Your task to perform on an android device: Open notification settings Image 0: 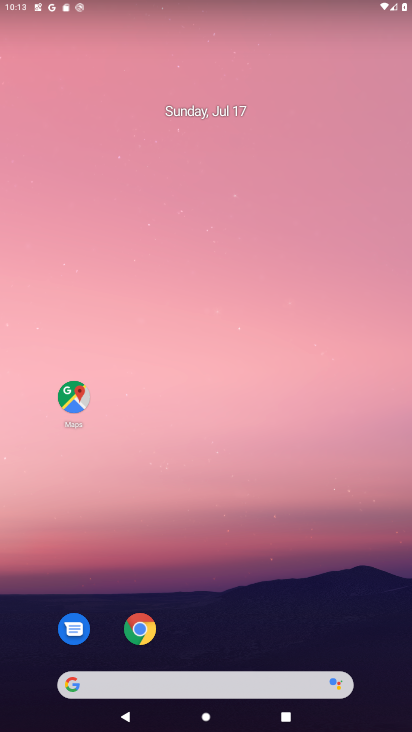
Step 0: drag from (193, 690) to (242, 193)
Your task to perform on an android device: Open notification settings Image 1: 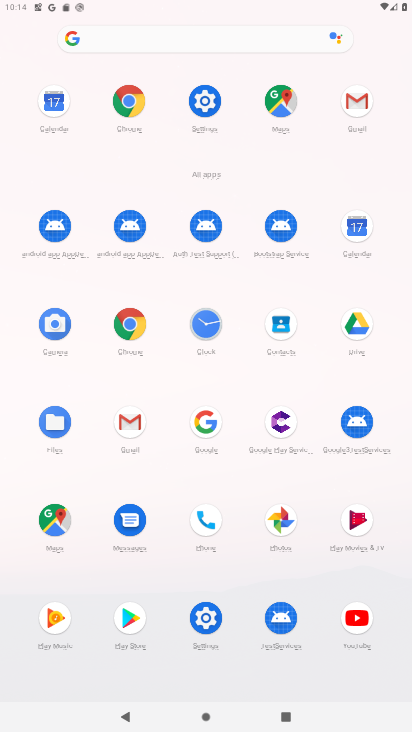
Step 1: click (207, 619)
Your task to perform on an android device: Open notification settings Image 2: 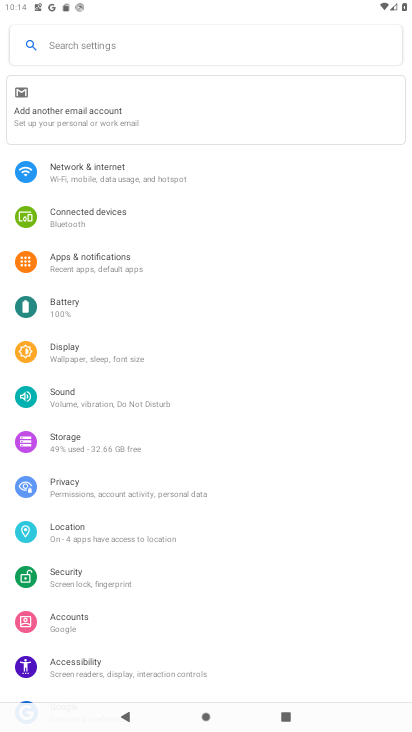
Step 2: click (72, 269)
Your task to perform on an android device: Open notification settings Image 3: 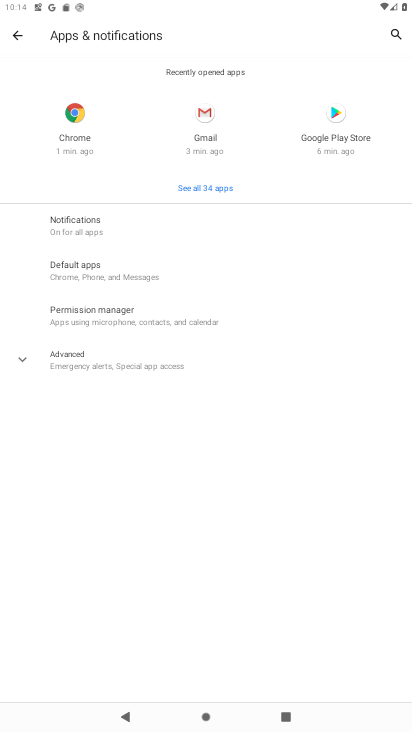
Step 3: click (77, 220)
Your task to perform on an android device: Open notification settings Image 4: 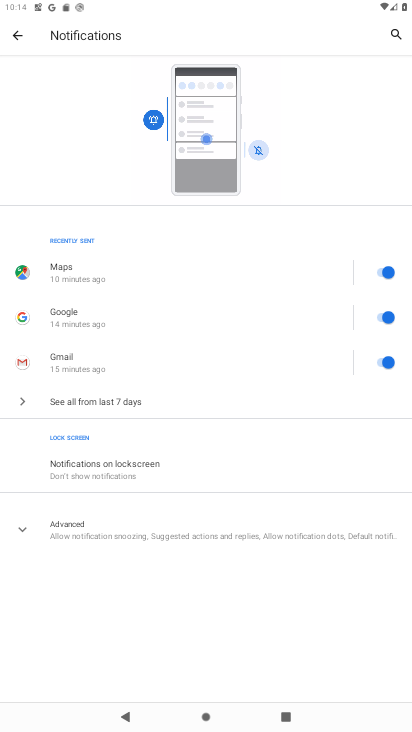
Step 4: task complete